Your task to perform on an android device: Open Google Maps and go to "Timeline" Image 0: 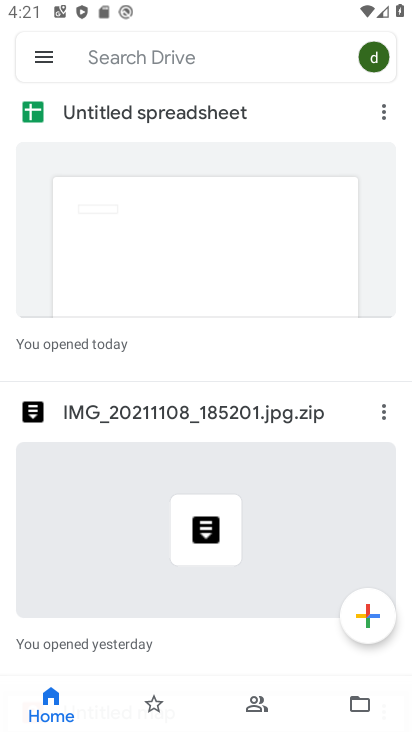
Step 0: press home button
Your task to perform on an android device: Open Google Maps and go to "Timeline" Image 1: 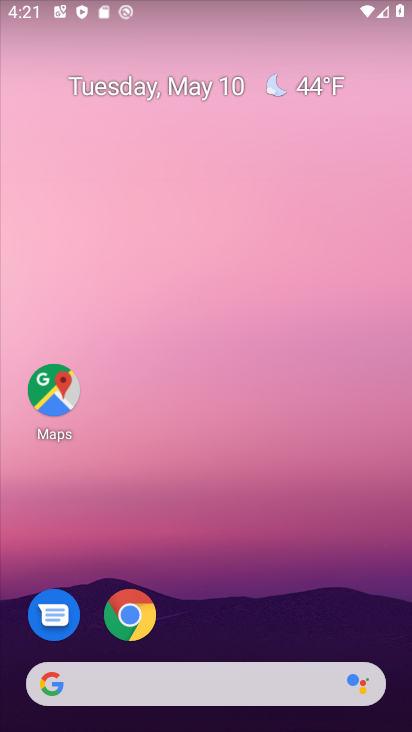
Step 1: drag from (201, 725) to (200, 176)
Your task to perform on an android device: Open Google Maps and go to "Timeline" Image 2: 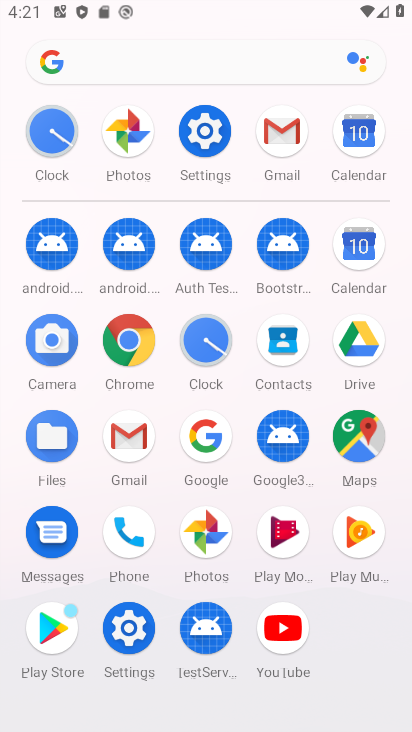
Step 2: click (365, 437)
Your task to perform on an android device: Open Google Maps and go to "Timeline" Image 3: 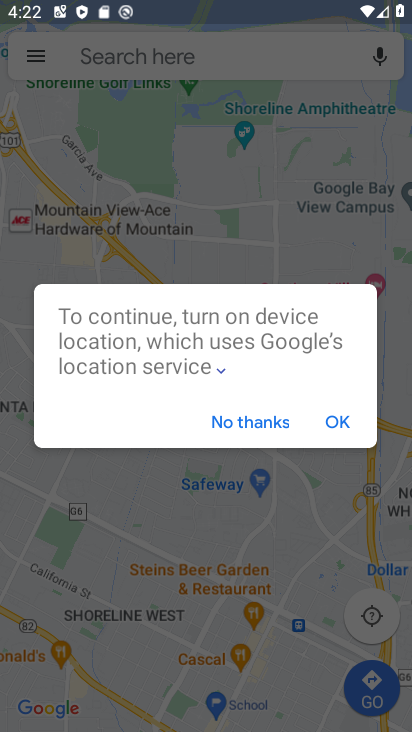
Step 3: click (264, 417)
Your task to perform on an android device: Open Google Maps and go to "Timeline" Image 4: 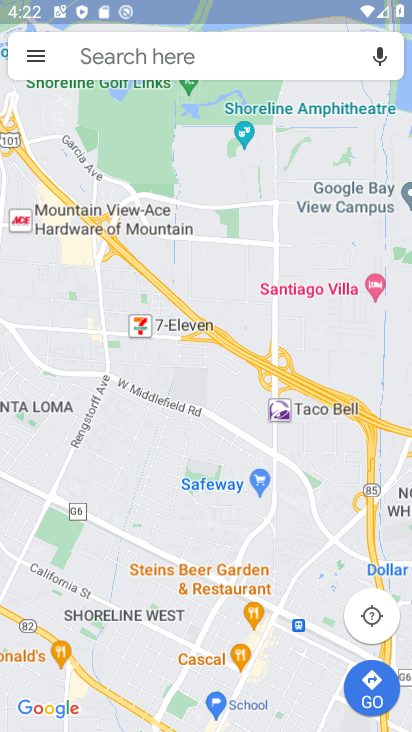
Step 4: click (31, 53)
Your task to perform on an android device: Open Google Maps and go to "Timeline" Image 5: 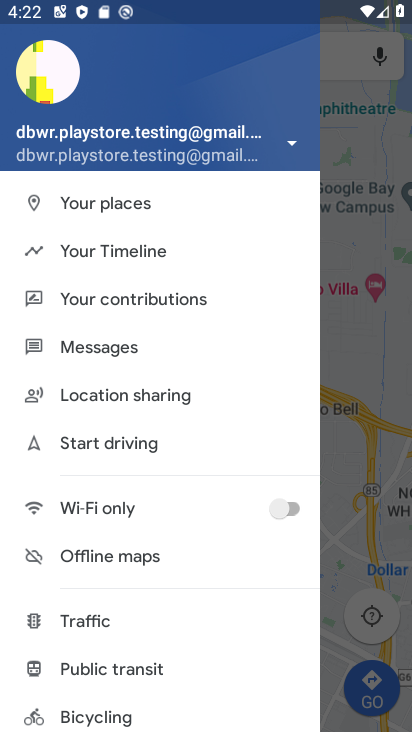
Step 5: click (125, 253)
Your task to perform on an android device: Open Google Maps and go to "Timeline" Image 6: 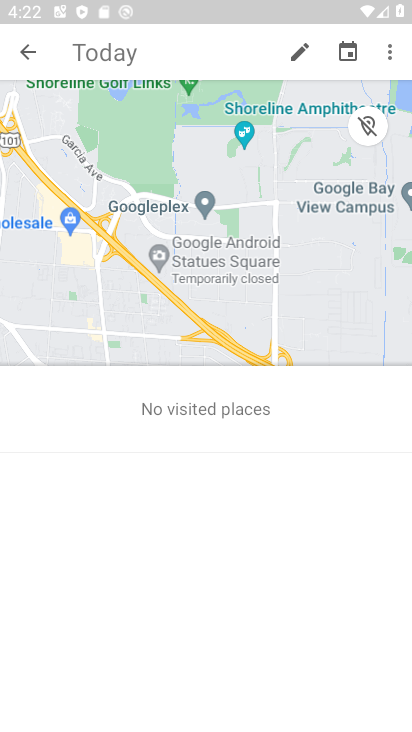
Step 6: task complete